Your task to perform on an android device: Open network settings Image 0: 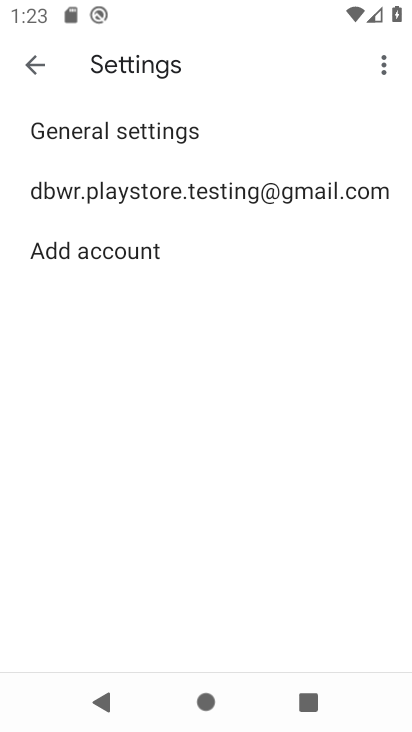
Step 0: press home button
Your task to perform on an android device: Open network settings Image 1: 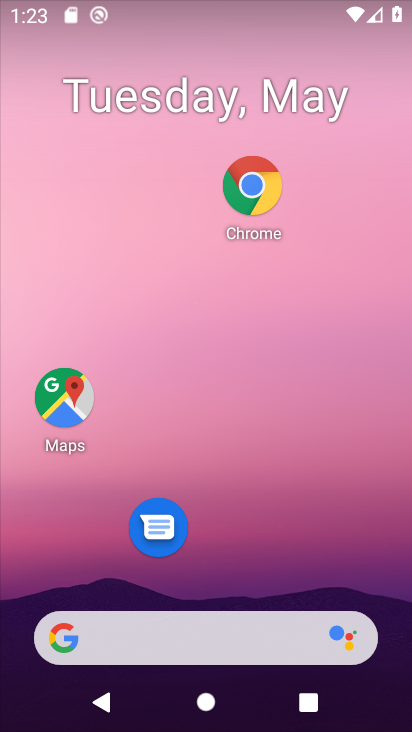
Step 1: drag from (257, 472) to (192, 13)
Your task to perform on an android device: Open network settings Image 2: 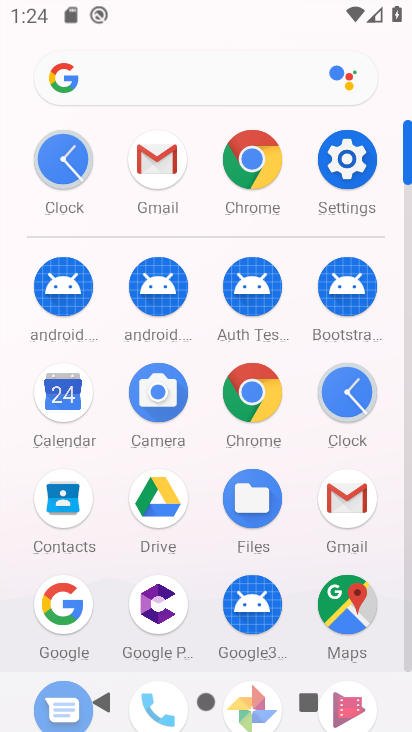
Step 2: click (349, 157)
Your task to perform on an android device: Open network settings Image 3: 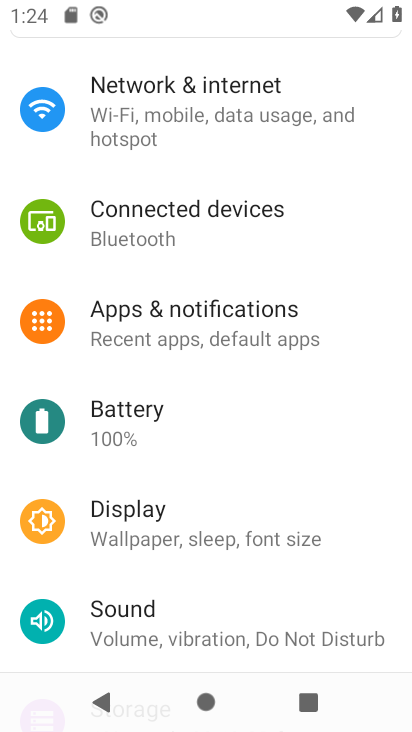
Step 3: click (183, 94)
Your task to perform on an android device: Open network settings Image 4: 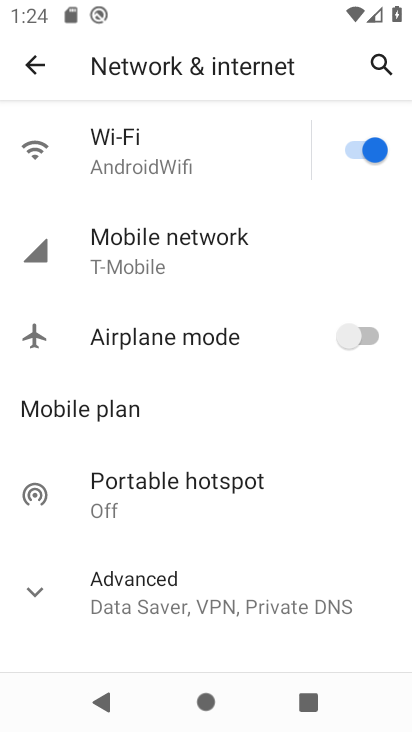
Step 4: click (201, 236)
Your task to perform on an android device: Open network settings Image 5: 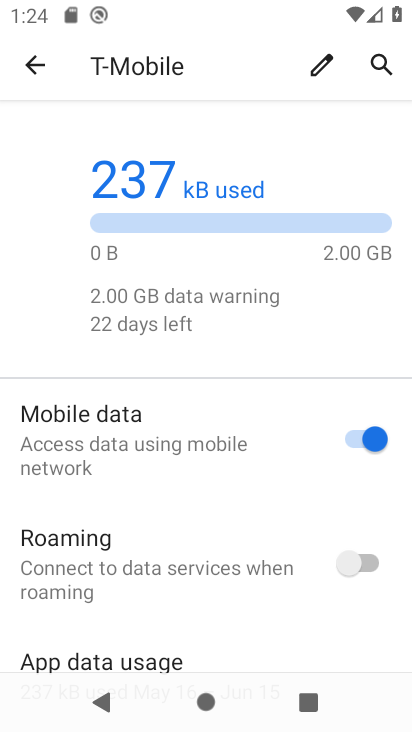
Step 5: task complete